Your task to perform on an android device: toggle notifications settings in the gmail app Image 0: 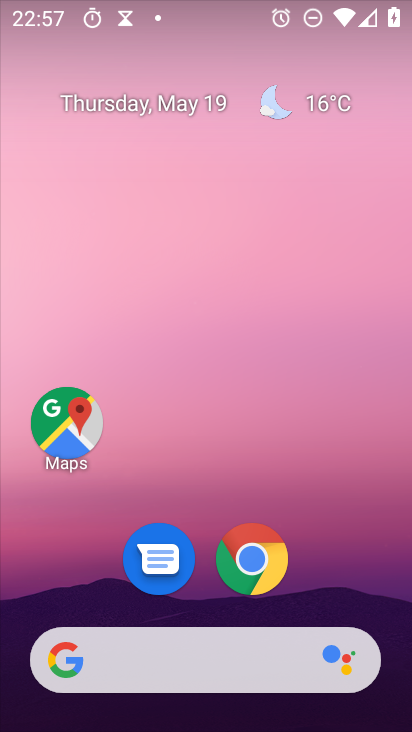
Step 0: drag from (179, 719) to (182, 166)
Your task to perform on an android device: toggle notifications settings in the gmail app Image 1: 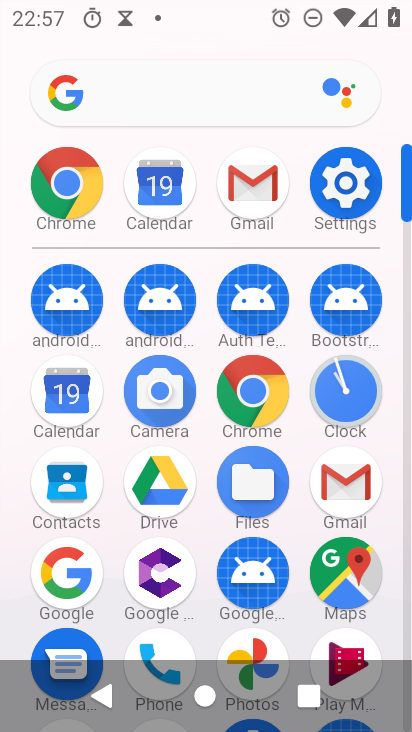
Step 1: click (347, 484)
Your task to perform on an android device: toggle notifications settings in the gmail app Image 2: 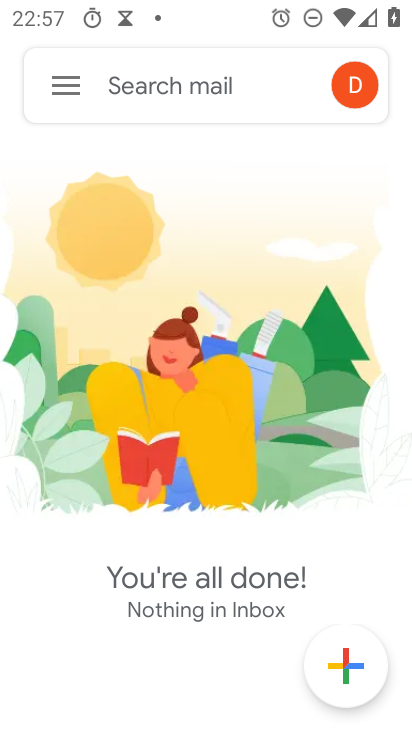
Step 2: click (63, 86)
Your task to perform on an android device: toggle notifications settings in the gmail app Image 3: 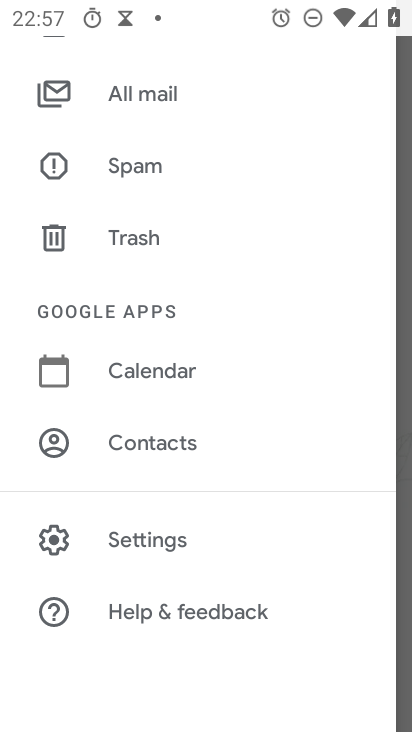
Step 3: drag from (176, 620) to (157, 230)
Your task to perform on an android device: toggle notifications settings in the gmail app Image 4: 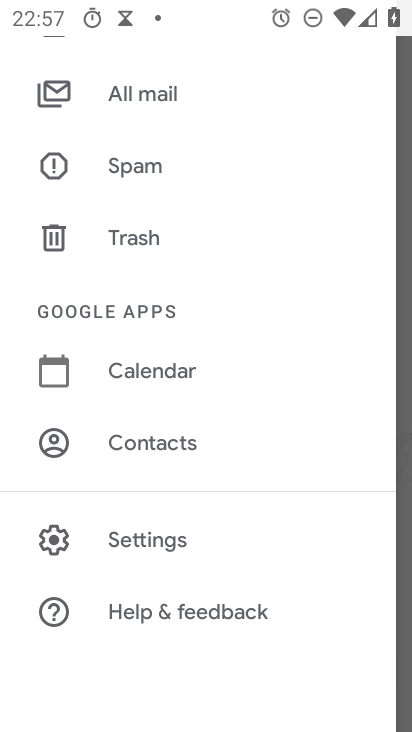
Step 4: click (147, 534)
Your task to perform on an android device: toggle notifications settings in the gmail app Image 5: 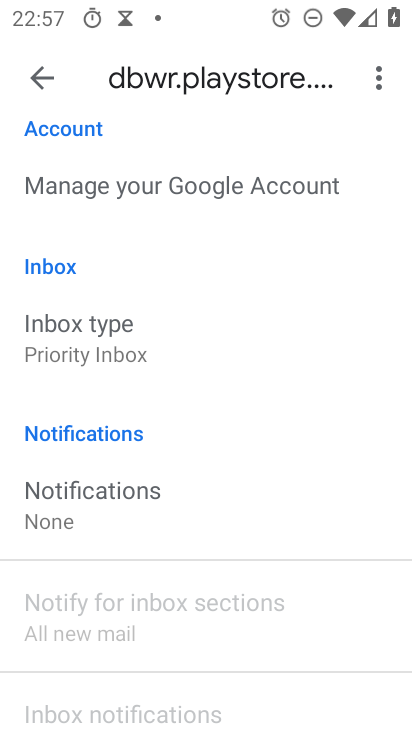
Step 5: drag from (168, 680) to (168, 589)
Your task to perform on an android device: toggle notifications settings in the gmail app Image 6: 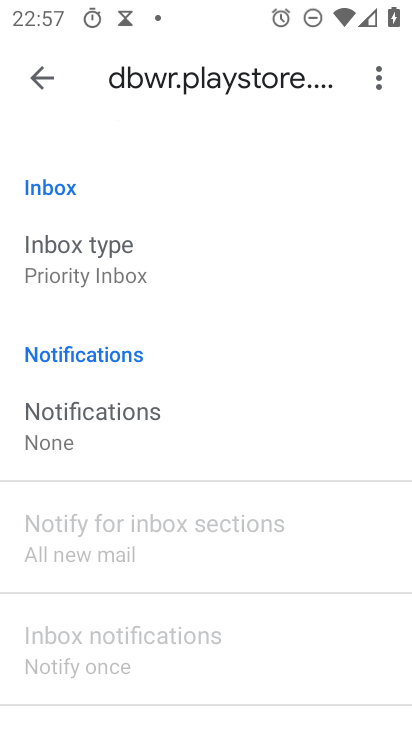
Step 6: click (67, 418)
Your task to perform on an android device: toggle notifications settings in the gmail app Image 7: 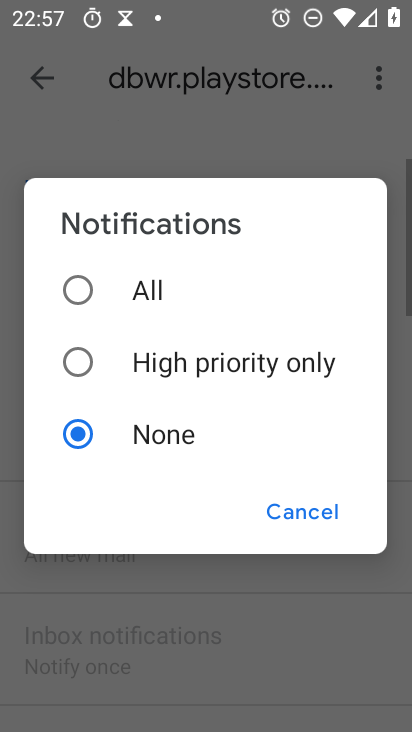
Step 7: click (78, 276)
Your task to perform on an android device: toggle notifications settings in the gmail app Image 8: 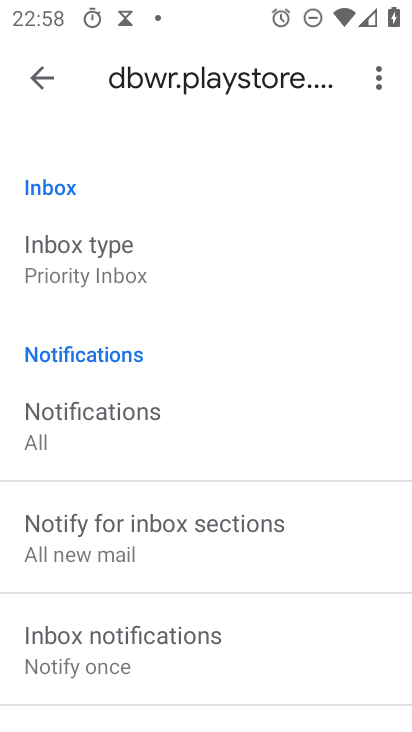
Step 8: task complete